Your task to perform on an android device: Go to display settings Image 0: 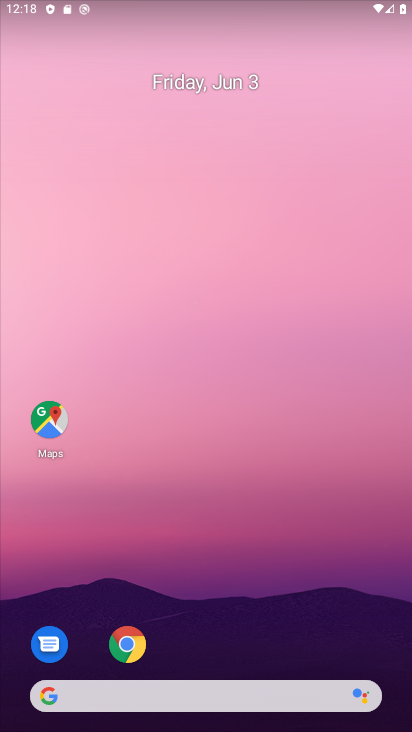
Step 0: drag from (245, 650) to (284, 370)
Your task to perform on an android device: Go to display settings Image 1: 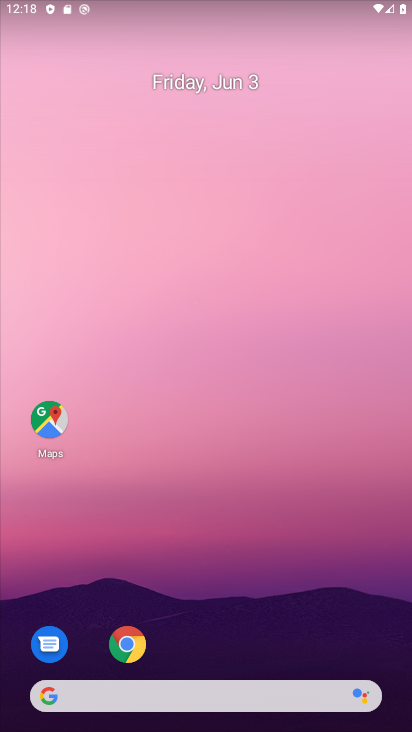
Step 1: drag from (216, 670) to (330, 33)
Your task to perform on an android device: Go to display settings Image 2: 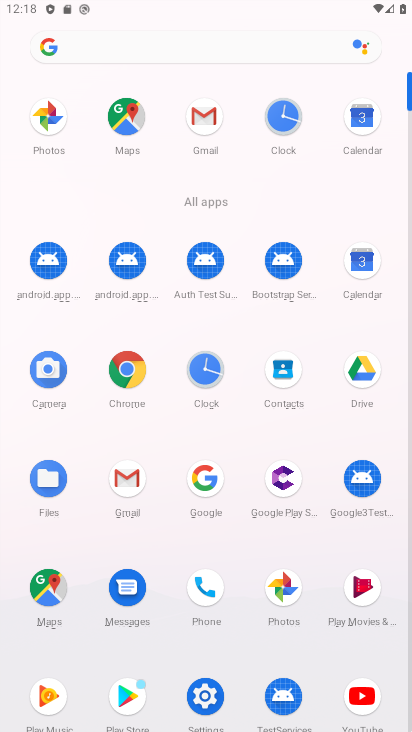
Step 2: click (211, 689)
Your task to perform on an android device: Go to display settings Image 3: 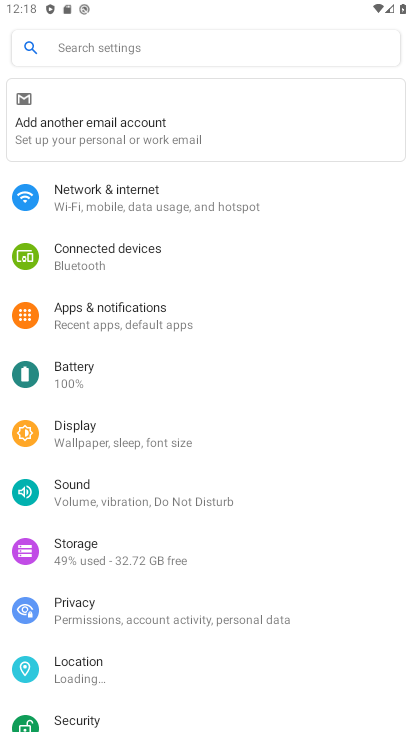
Step 3: click (114, 433)
Your task to perform on an android device: Go to display settings Image 4: 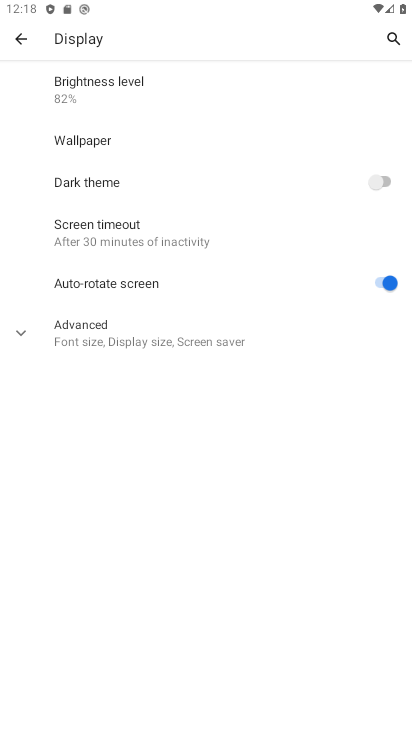
Step 4: task complete